Your task to perform on an android device: turn on airplane mode Image 0: 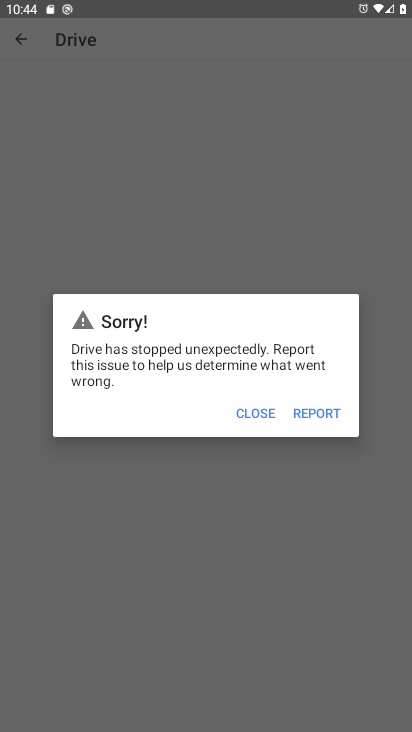
Step 0: press home button
Your task to perform on an android device: turn on airplane mode Image 1: 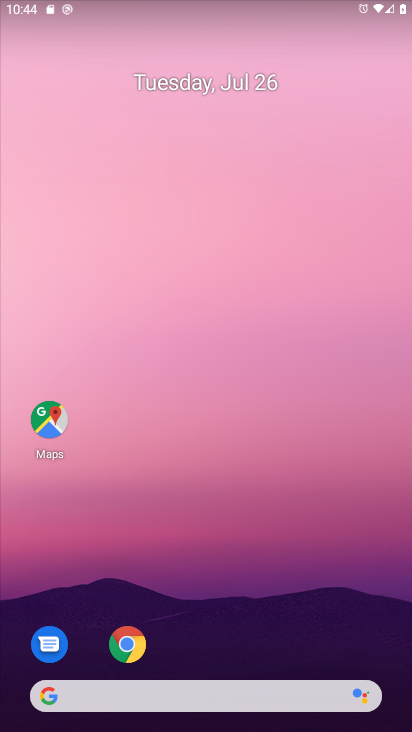
Step 1: drag from (219, 621) to (216, 159)
Your task to perform on an android device: turn on airplane mode Image 2: 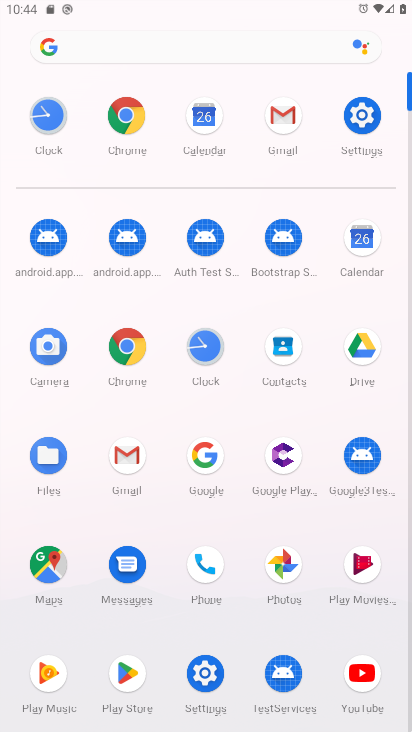
Step 2: click (366, 138)
Your task to perform on an android device: turn on airplane mode Image 3: 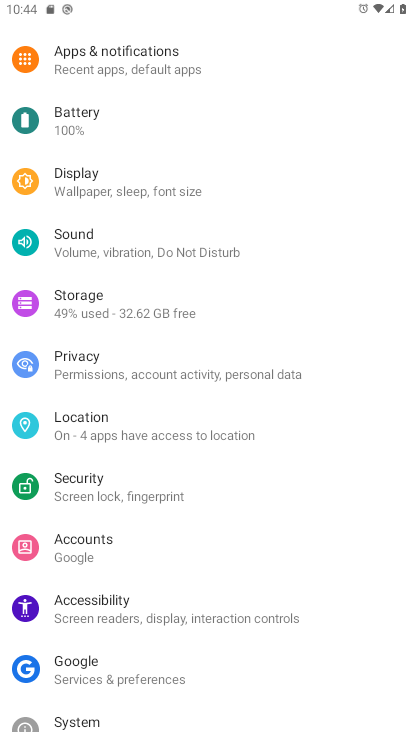
Step 3: drag from (183, 172) to (185, 565)
Your task to perform on an android device: turn on airplane mode Image 4: 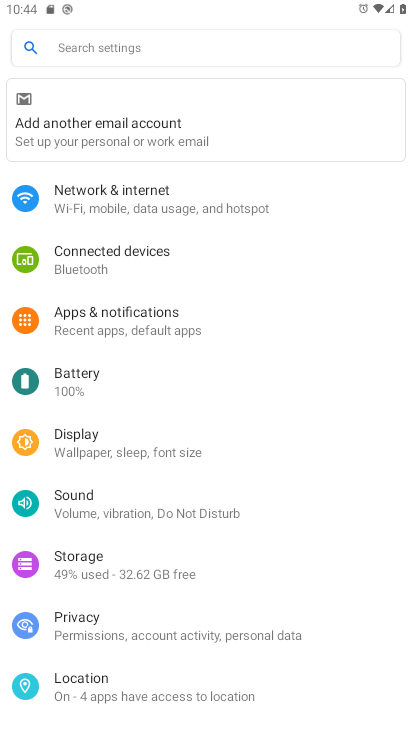
Step 4: click (127, 209)
Your task to perform on an android device: turn on airplane mode Image 5: 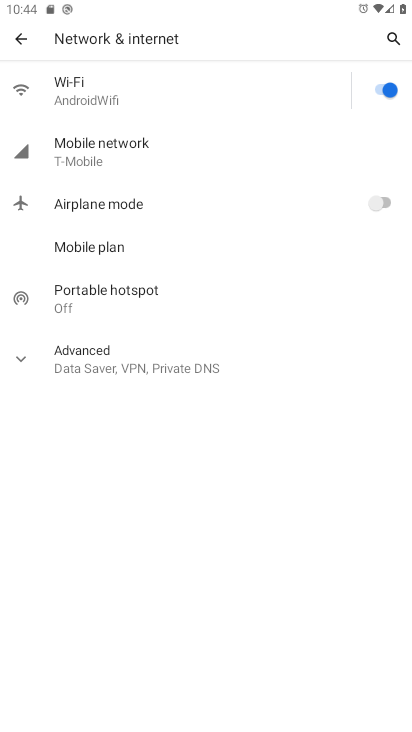
Step 5: click (398, 199)
Your task to perform on an android device: turn on airplane mode Image 6: 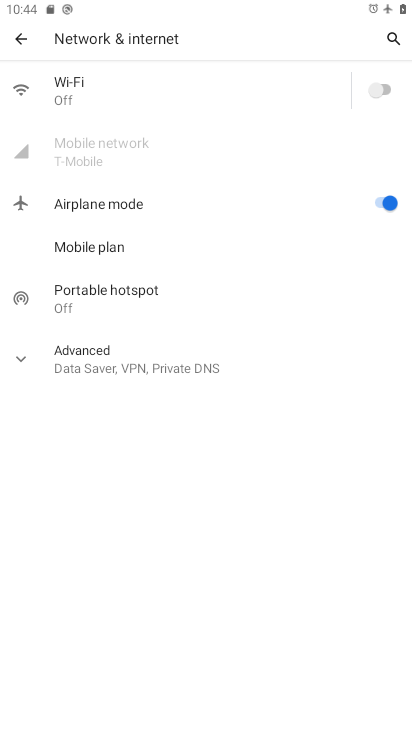
Step 6: task complete